Your task to perform on an android device: visit the assistant section in the google photos Image 0: 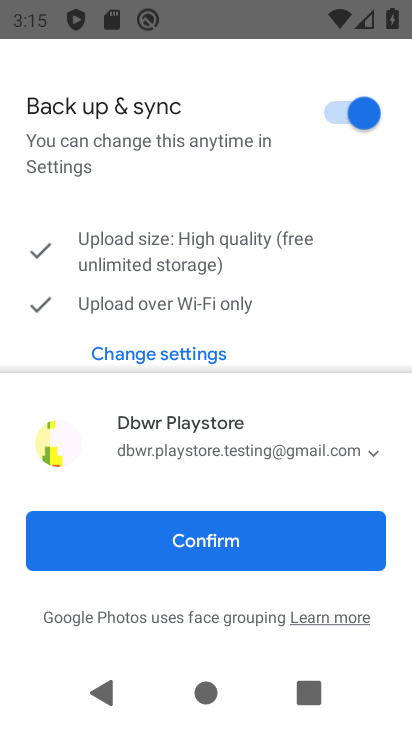
Step 0: press home button
Your task to perform on an android device: visit the assistant section in the google photos Image 1: 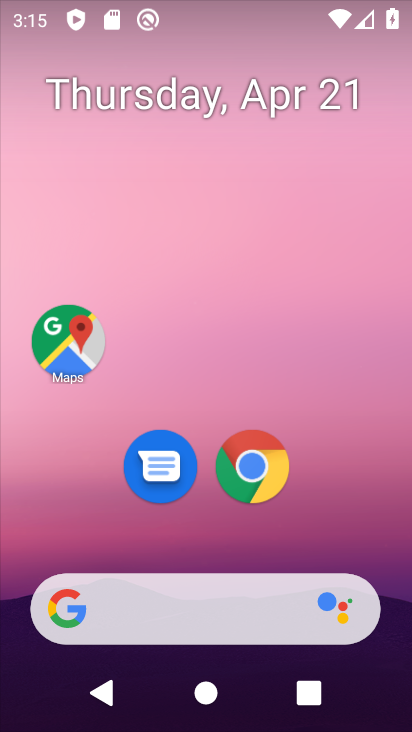
Step 1: press home button
Your task to perform on an android device: visit the assistant section in the google photos Image 2: 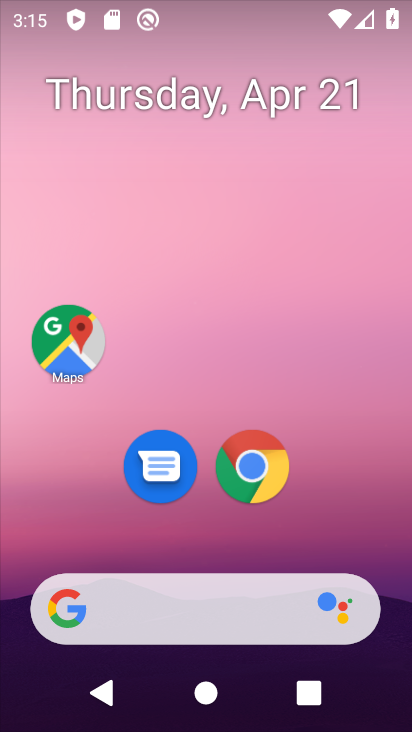
Step 2: drag from (212, 550) to (208, 76)
Your task to perform on an android device: visit the assistant section in the google photos Image 3: 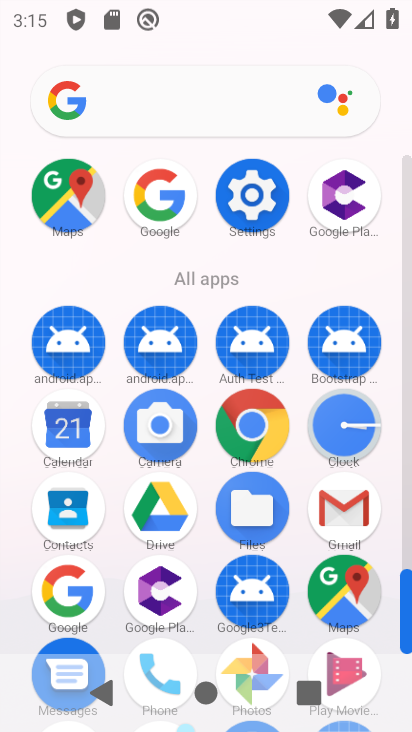
Step 3: drag from (212, 596) to (205, 276)
Your task to perform on an android device: visit the assistant section in the google photos Image 4: 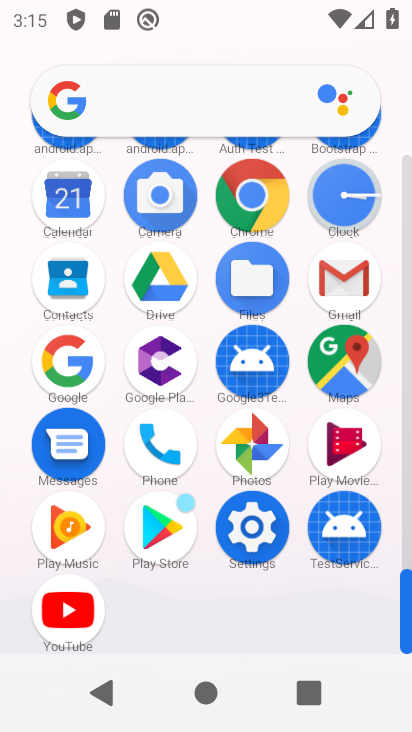
Step 4: click (261, 431)
Your task to perform on an android device: visit the assistant section in the google photos Image 5: 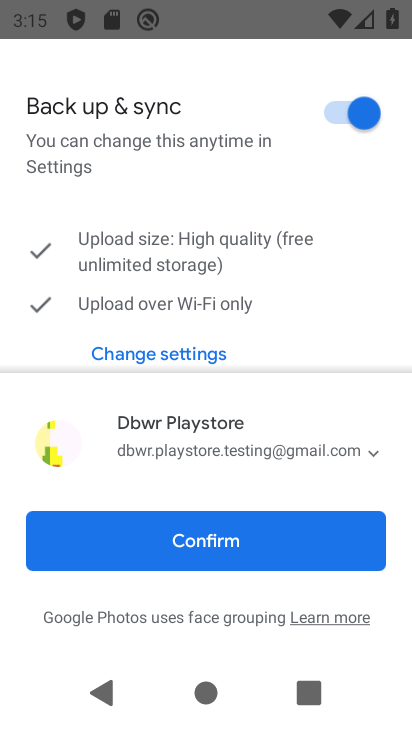
Step 5: click (261, 537)
Your task to perform on an android device: visit the assistant section in the google photos Image 6: 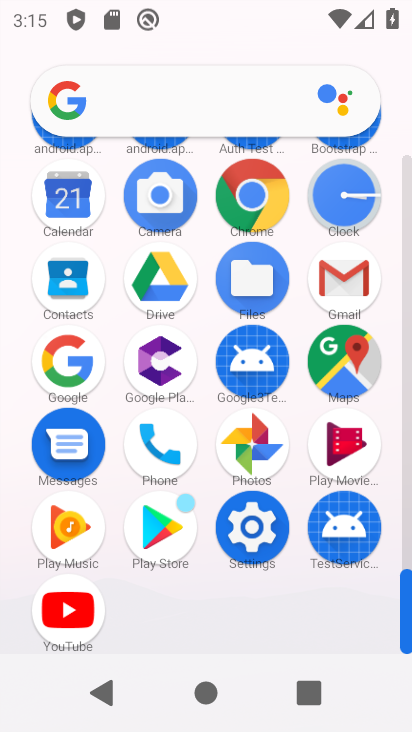
Step 6: click (262, 436)
Your task to perform on an android device: visit the assistant section in the google photos Image 7: 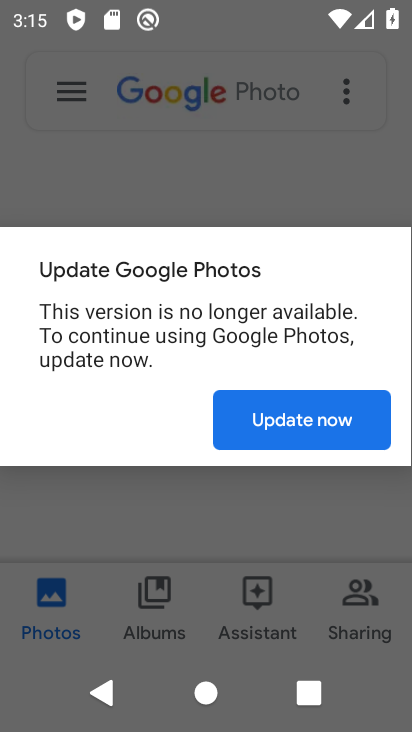
Step 7: click (294, 415)
Your task to perform on an android device: visit the assistant section in the google photos Image 8: 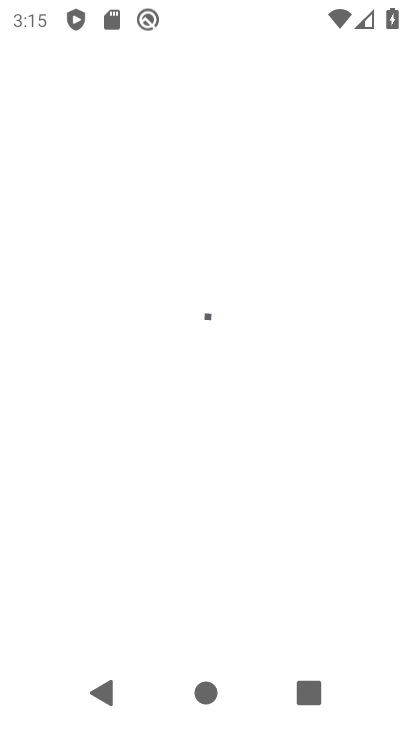
Step 8: click (97, 688)
Your task to perform on an android device: visit the assistant section in the google photos Image 9: 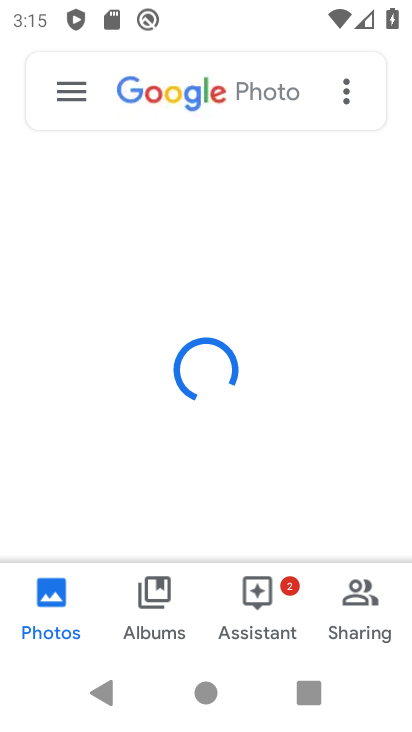
Step 9: click (255, 606)
Your task to perform on an android device: visit the assistant section in the google photos Image 10: 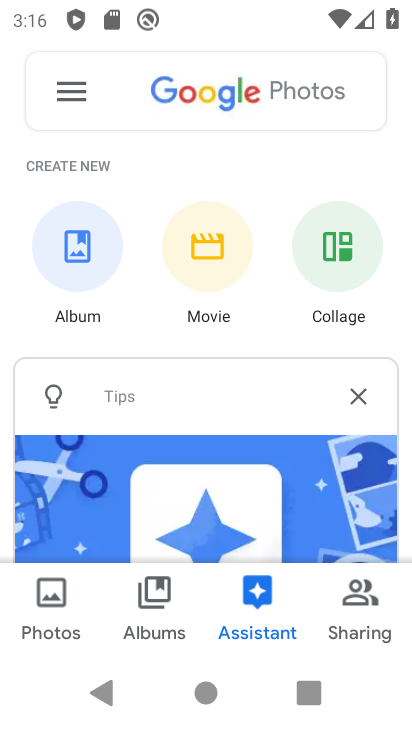
Step 10: task complete